Your task to perform on an android device: turn off priority inbox in the gmail app Image 0: 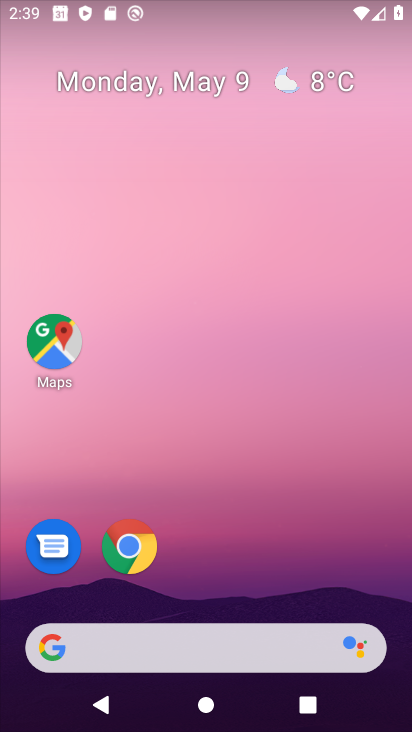
Step 0: drag from (271, 543) to (235, 71)
Your task to perform on an android device: turn off priority inbox in the gmail app Image 1: 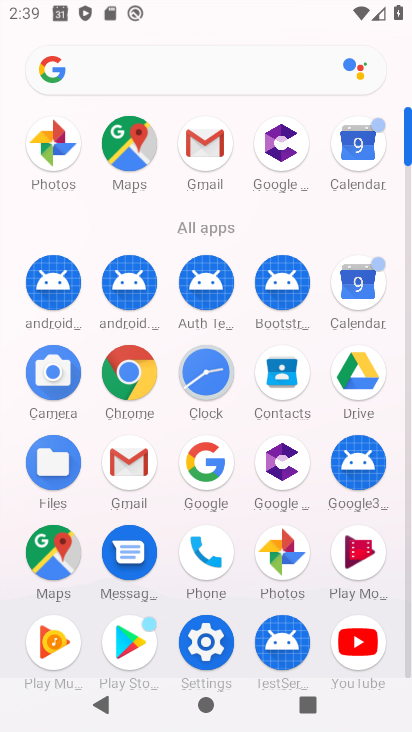
Step 1: click (206, 139)
Your task to perform on an android device: turn off priority inbox in the gmail app Image 2: 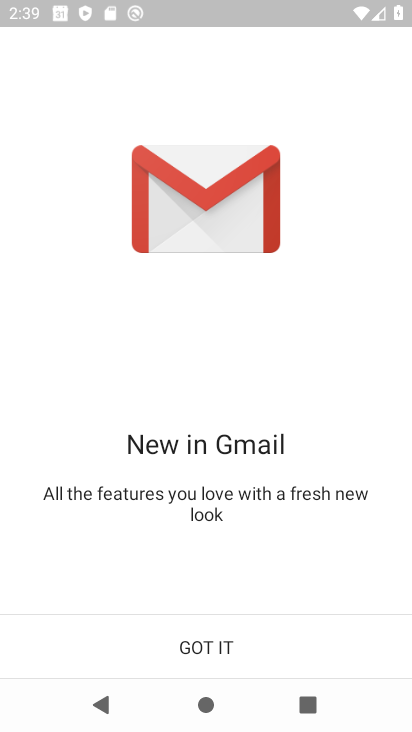
Step 2: click (243, 645)
Your task to perform on an android device: turn off priority inbox in the gmail app Image 3: 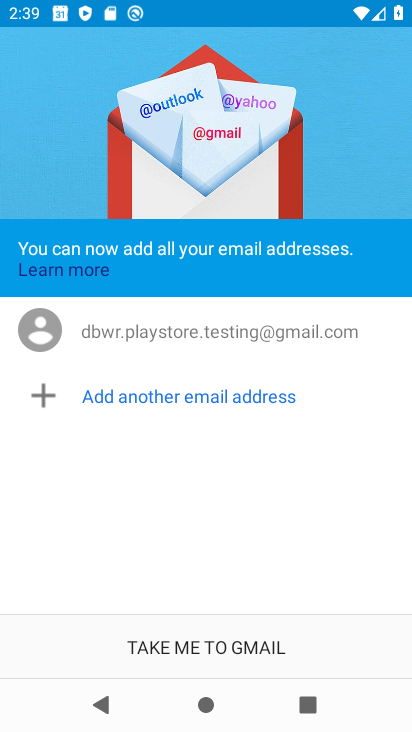
Step 3: click (243, 645)
Your task to perform on an android device: turn off priority inbox in the gmail app Image 4: 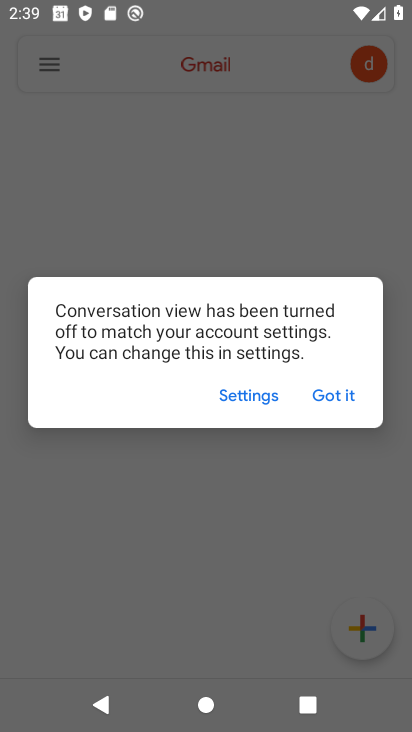
Step 4: click (322, 388)
Your task to perform on an android device: turn off priority inbox in the gmail app Image 5: 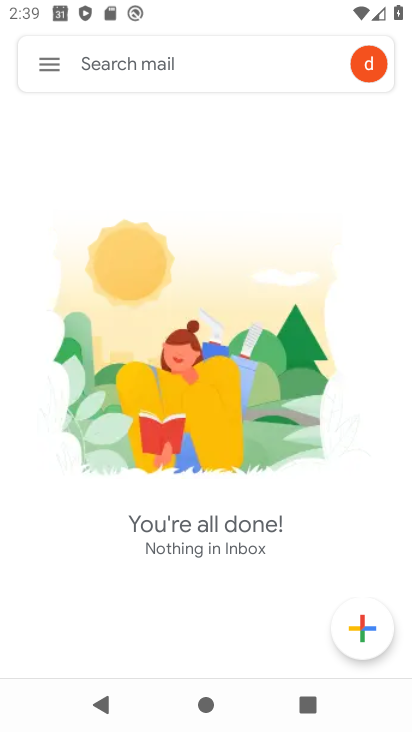
Step 5: click (50, 55)
Your task to perform on an android device: turn off priority inbox in the gmail app Image 6: 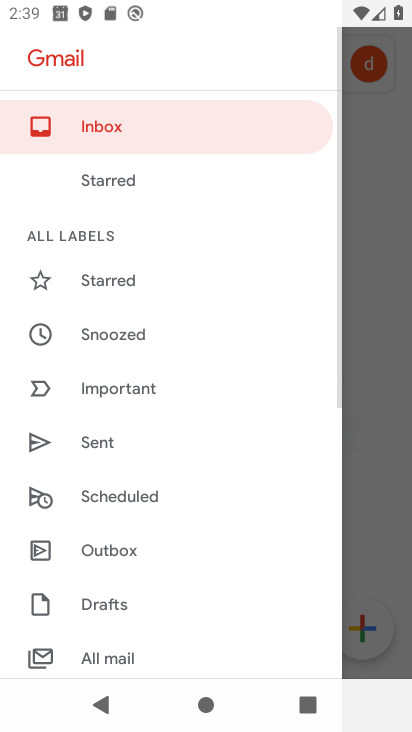
Step 6: drag from (146, 572) to (154, 202)
Your task to perform on an android device: turn off priority inbox in the gmail app Image 7: 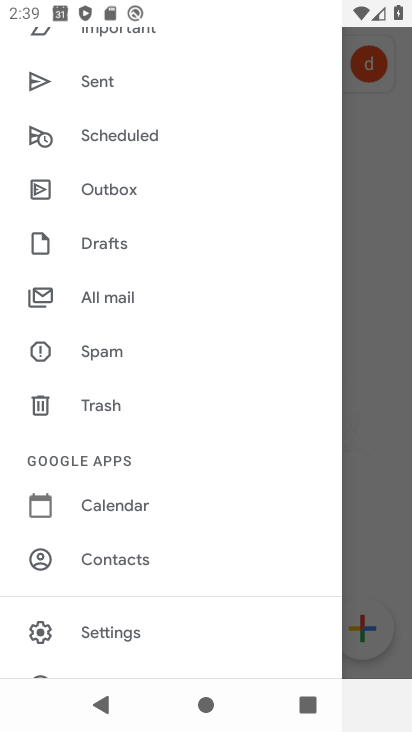
Step 7: click (127, 626)
Your task to perform on an android device: turn off priority inbox in the gmail app Image 8: 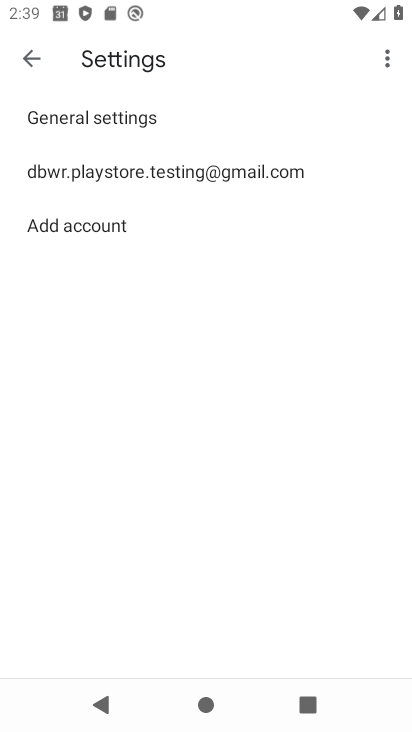
Step 8: click (177, 166)
Your task to perform on an android device: turn off priority inbox in the gmail app Image 9: 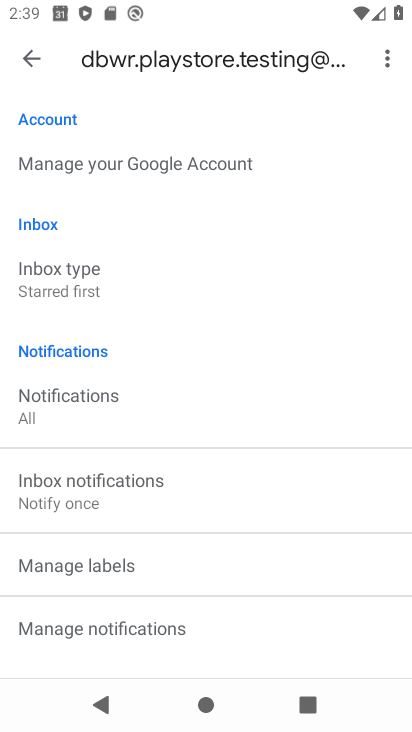
Step 9: click (81, 259)
Your task to perform on an android device: turn off priority inbox in the gmail app Image 10: 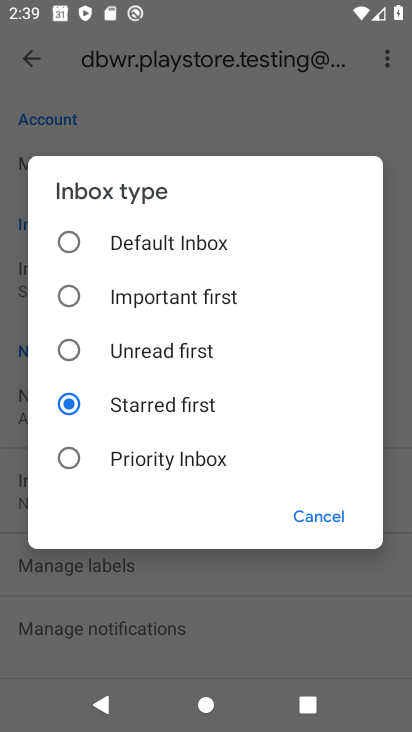
Step 10: click (72, 233)
Your task to perform on an android device: turn off priority inbox in the gmail app Image 11: 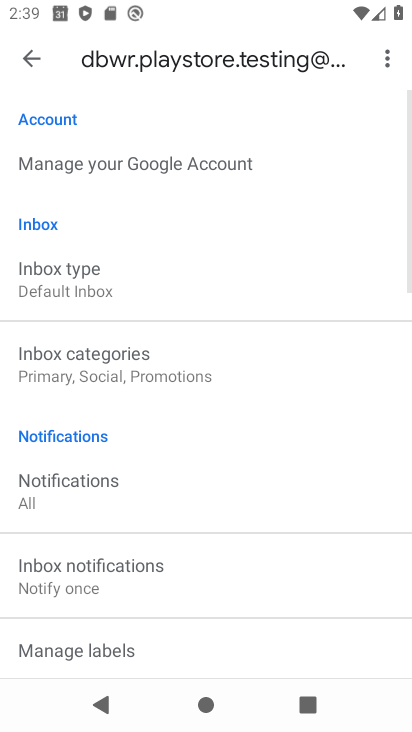
Step 11: task complete